Your task to perform on an android device: set an alarm Image 0: 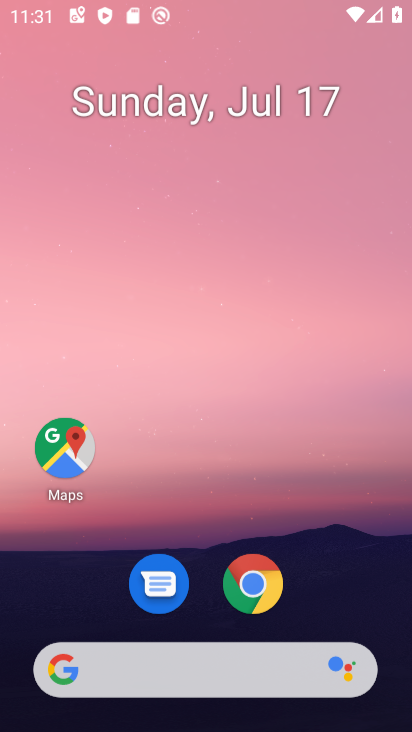
Step 0: drag from (216, 423) to (229, 141)
Your task to perform on an android device: set an alarm Image 1: 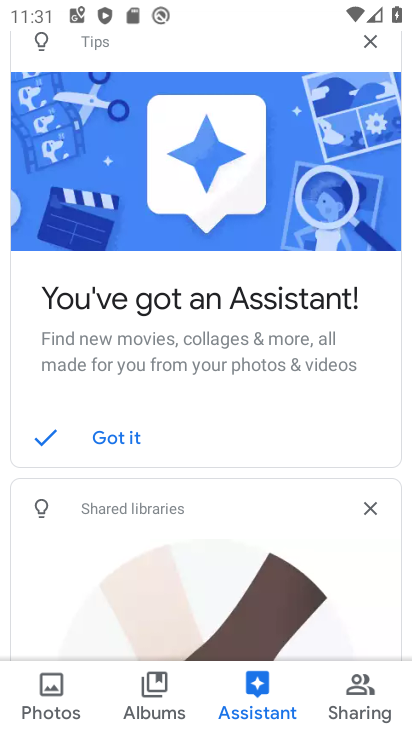
Step 1: press home button
Your task to perform on an android device: set an alarm Image 2: 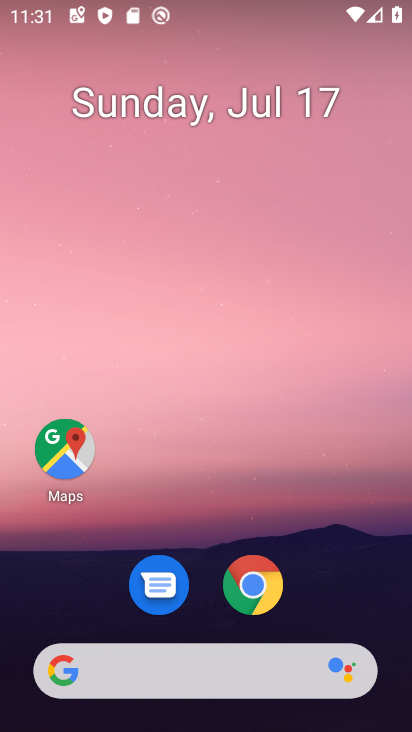
Step 2: drag from (292, 558) to (319, 31)
Your task to perform on an android device: set an alarm Image 3: 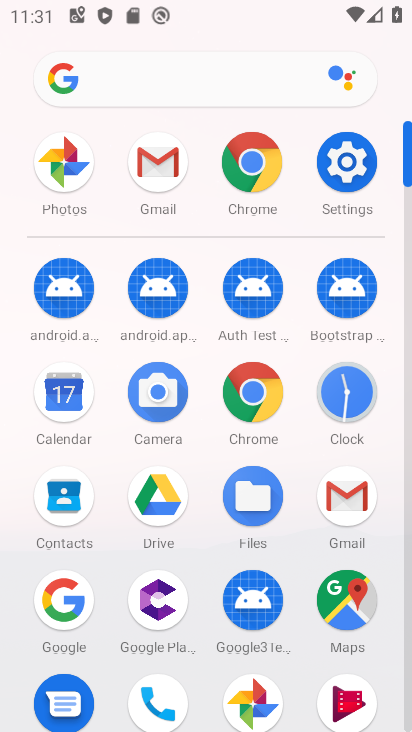
Step 3: click (337, 400)
Your task to perform on an android device: set an alarm Image 4: 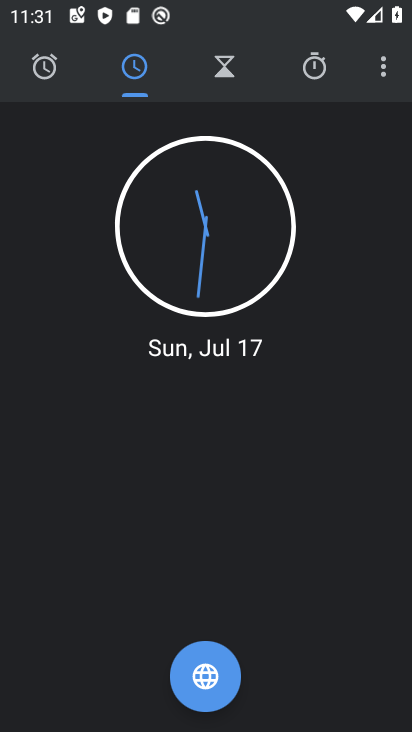
Step 4: click (38, 77)
Your task to perform on an android device: set an alarm Image 5: 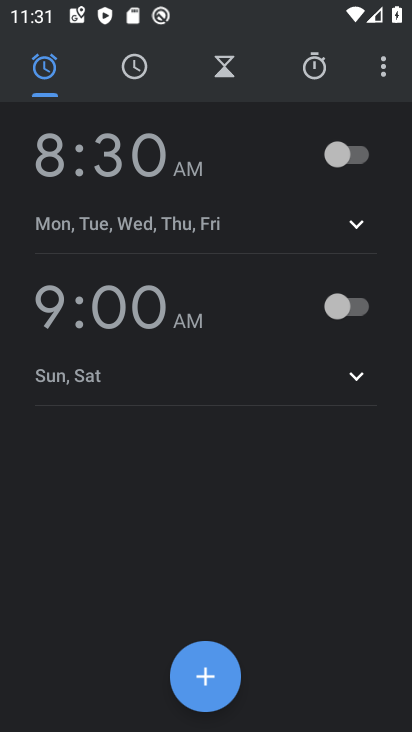
Step 5: click (195, 672)
Your task to perform on an android device: set an alarm Image 6: 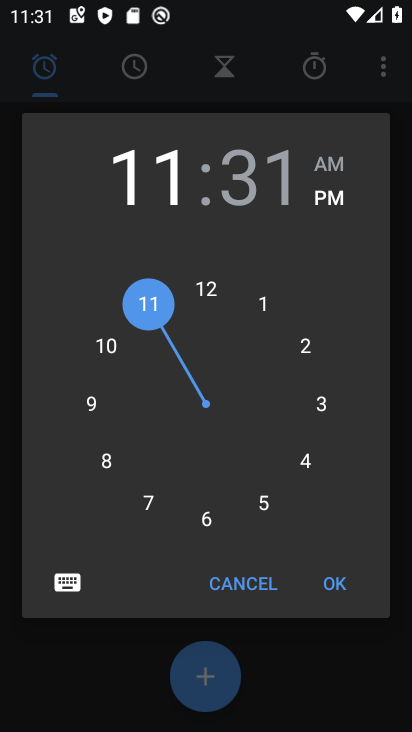
Step 6: click (264, 188)
Your task to perform on an android device: set an alarm Image 7: 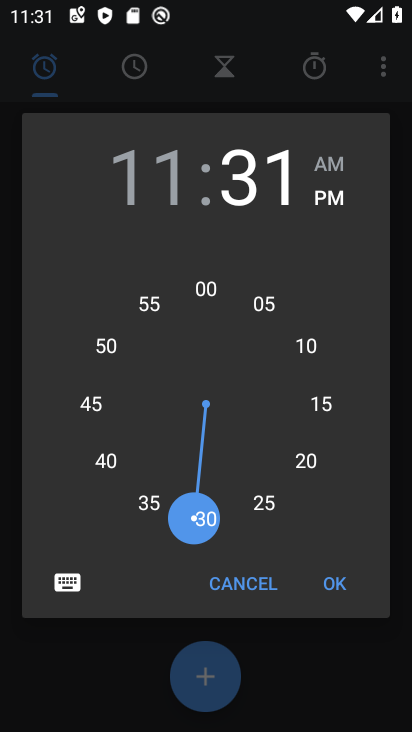
Step 7: click (221, 295)
Your task to perform on an android device: set an alarm Image 8: 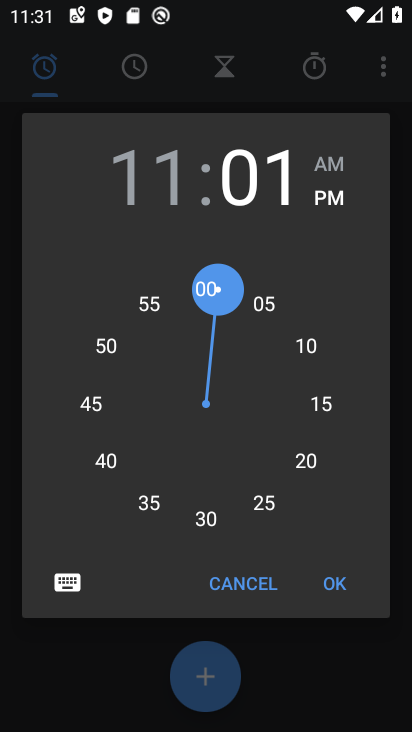
Step 8: click (208, 287)
Your task to perform on an android device: set an alarm Image 9: 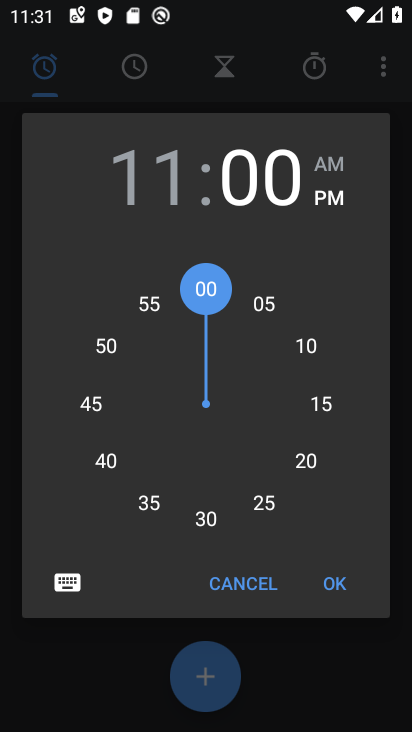
Step 9: click (330, 589)
Your task to perform on an android device: set an alarm Image 10: 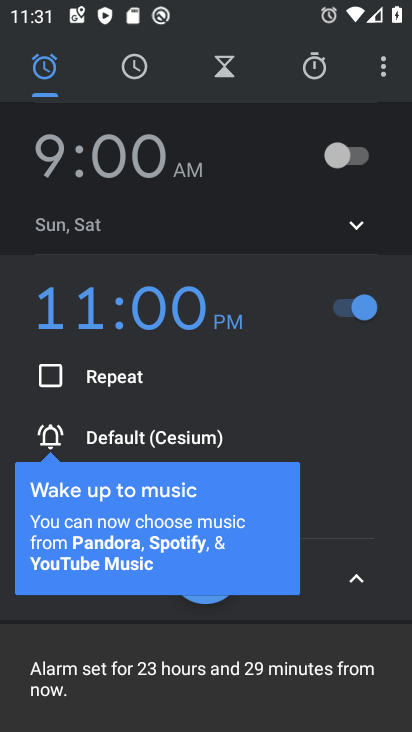
Step 10: task complete